Your task to perform on an android device: toggle improve location accuracy Image 0: 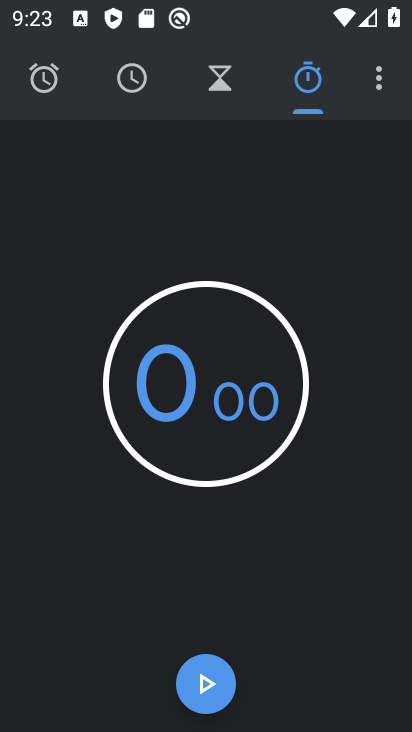
Step 0: press home button
Your task to perform on an android device: toggle improve location accuracy Image 1: 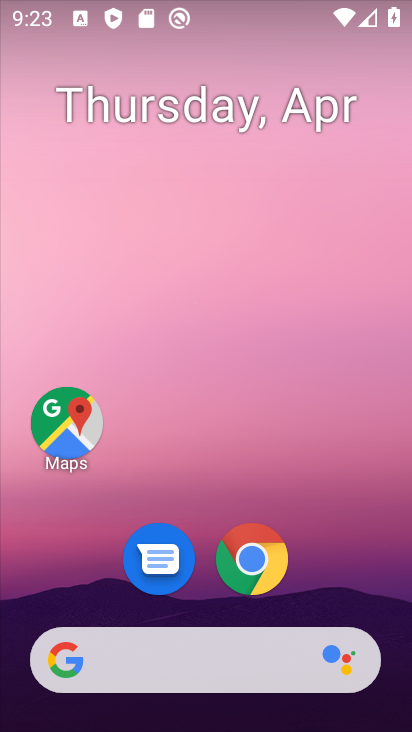
Step 1: click (76, 437)
Your task to perform on an android device: toggle improve location accuracy Image 2: 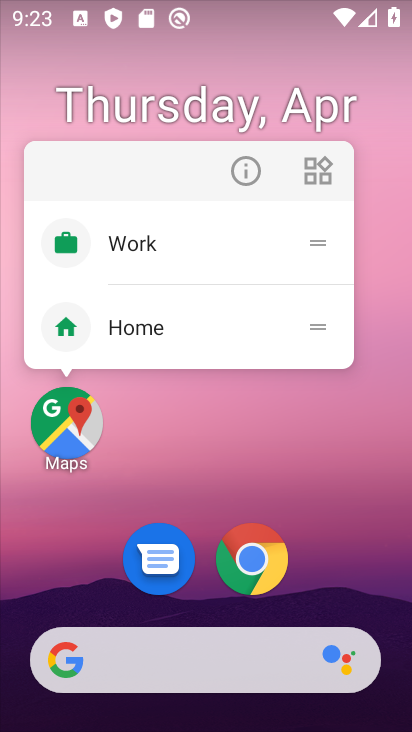
Step 2: click (78, 421)
Your task to perform on an android device: toggle improve location accuracy Image 3: 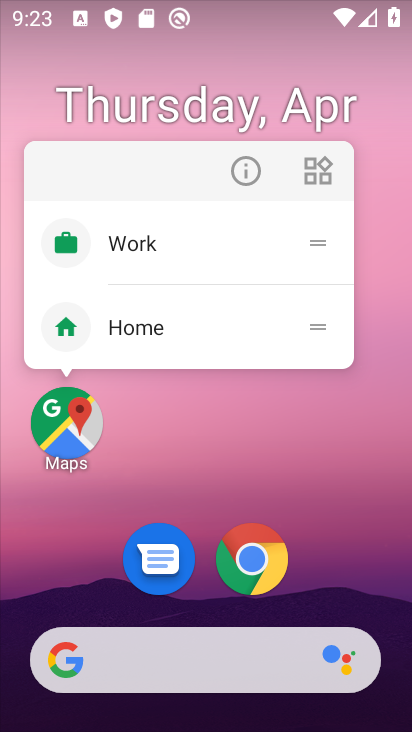
Step 3: click (78, 420)
Your task to perform on an android device: toggle improve location accuracy Image 4: 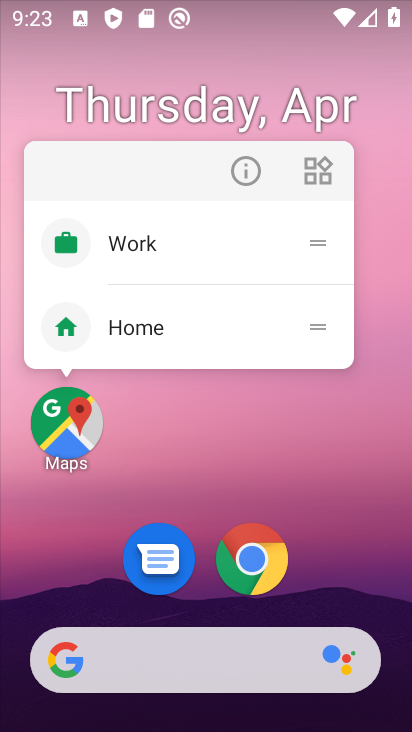
Step 4: click (78, 420)
Your task to perform on an android device: toggle improve location accuracy Image 5: 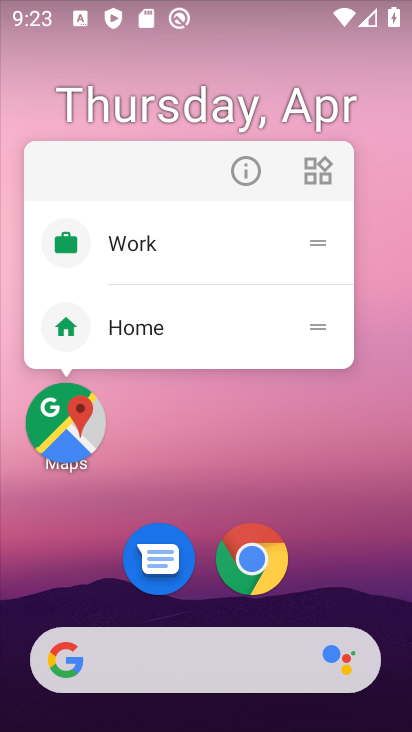
Step 5: click (78, 420)
Your task to perform on an android device: toggle improve location accuracy Image 6: 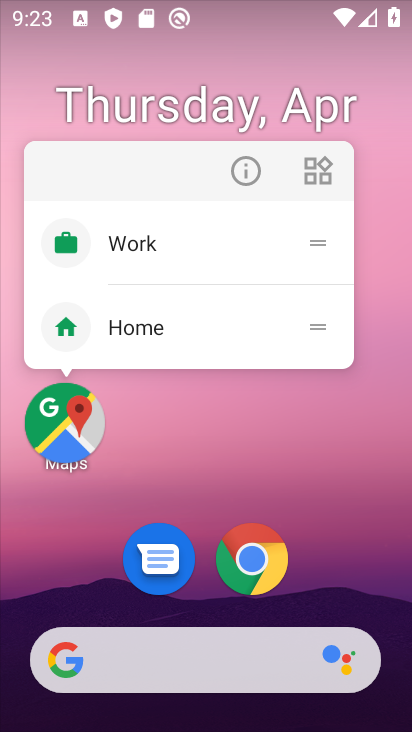
Step 6: click (78, 420)
Your task to perform on an android device: toggle improve location accuracy Image 7: 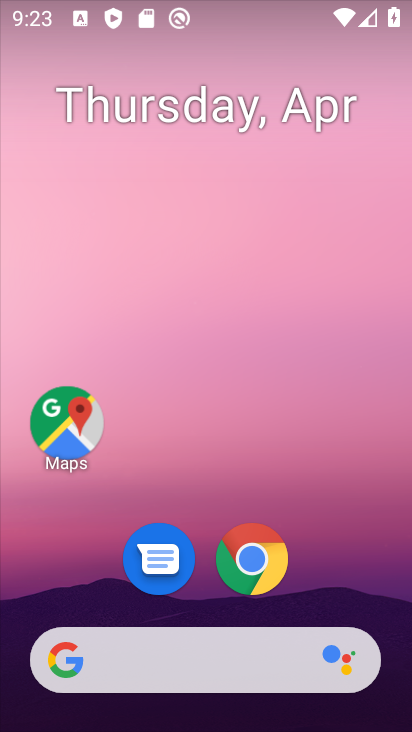
Step 7: click (78, 420)
Your task to perform on an android device: toggle improve location accuracy Image 8: 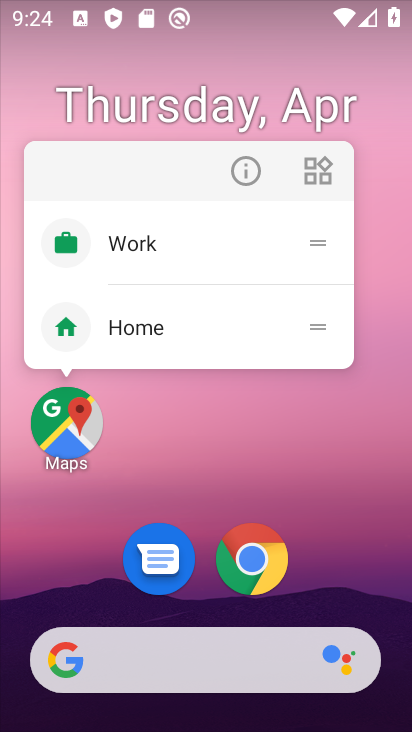
Step 8: click (78, 420)
Your task to perform on an android device: toggle improve location accuracy Image 9: 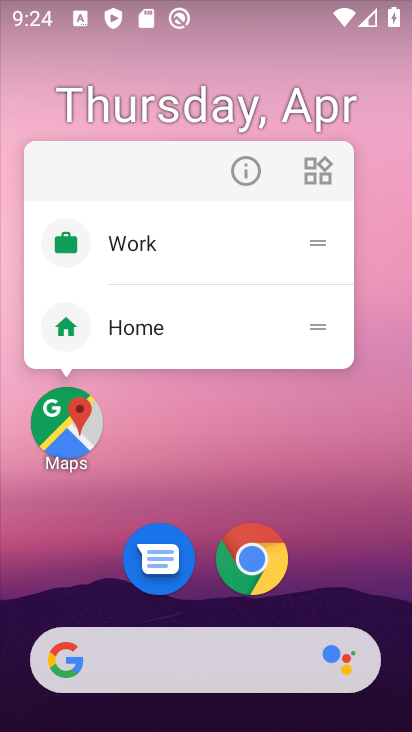
Step 9: click (78, 420)
Your task to perform on an android device: toggle improve location accuracy Image 10: 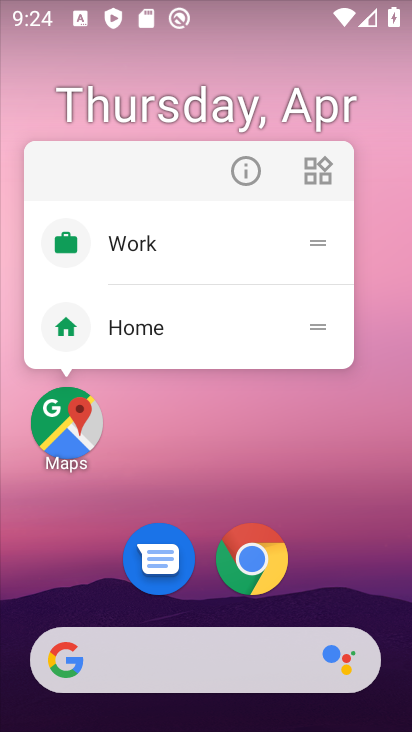
Step 10: click (78, 420)
Your task to perform on an android device: toggle improve location accuracy Image 11: 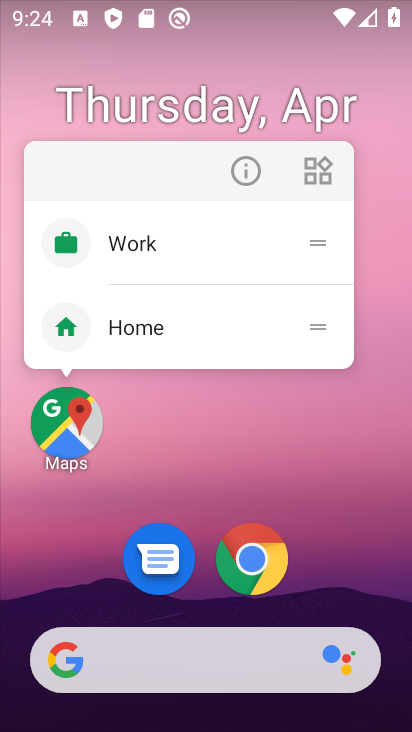
Step 11: click (78, 420)
Your task to perform on an android device: toggle improve location accuracy Image 12: 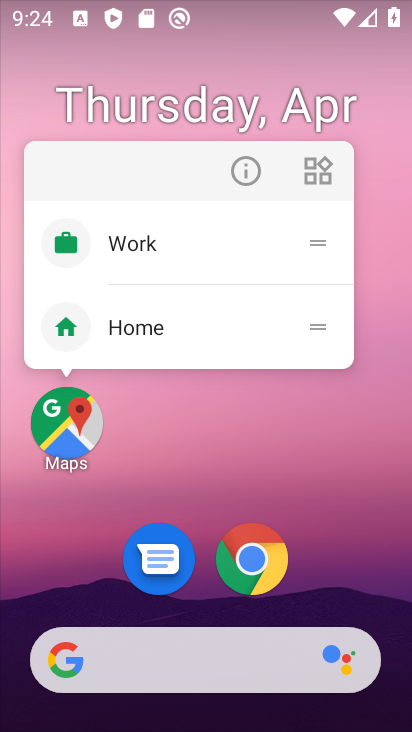
Step 12: click (78, 420)
Your task to perform on an android device: toggle improve location accuracy Image 13: 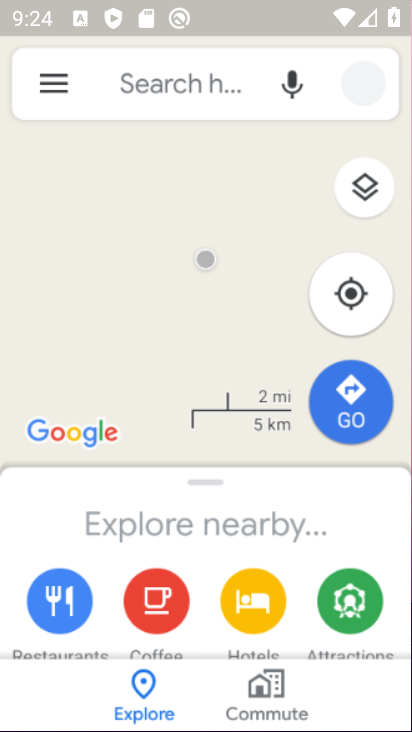
Step 13: click (78, 420)
Your task to perform on an android device: toggle improve location accuracy Image 14: 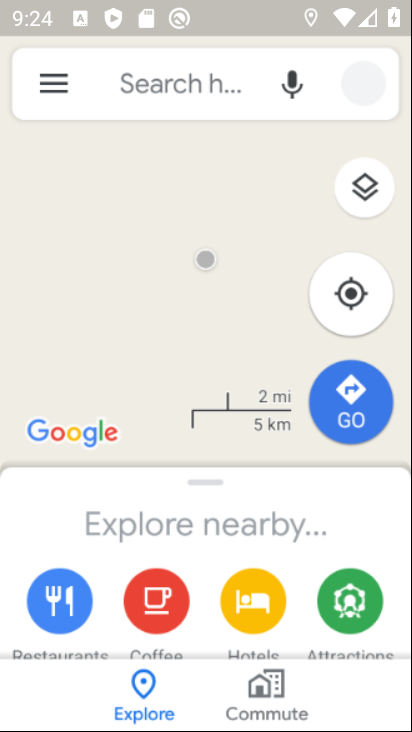
Step 14: click (78, 420)
Your task to perform on an android device: toggle improve location accuracy Image 15: 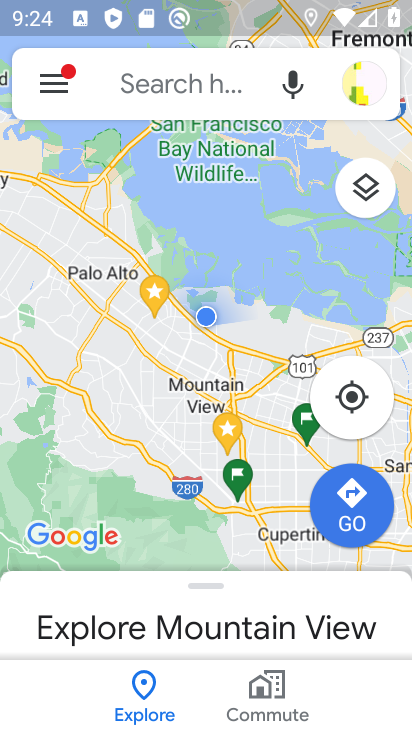
Step 15: click (52, 89)
Your task to perform on an android device: toggle improve location accuracy Image 16: 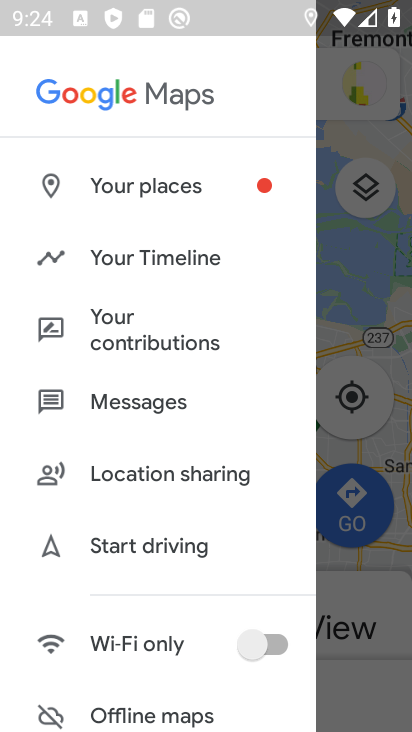
Step 16: drag from (174, 600) to (150, 100)
Your task to perform on an android device: toggle improve location accuracy Image 17: 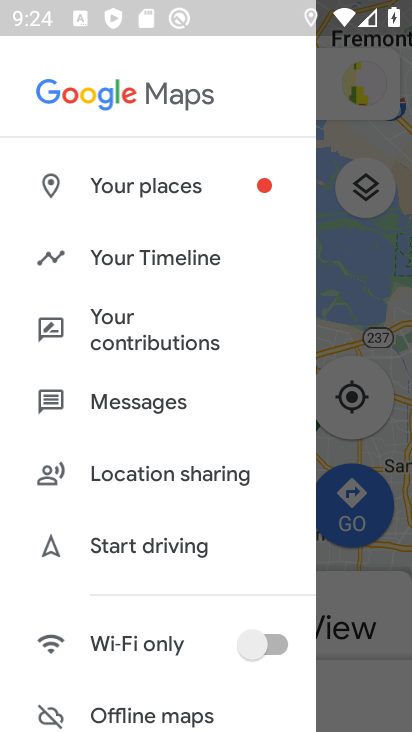
Step 17: drag from (157, 673) to (223, 101)
Your task to perform on an android device: toggle improve location accuracy Image 18: 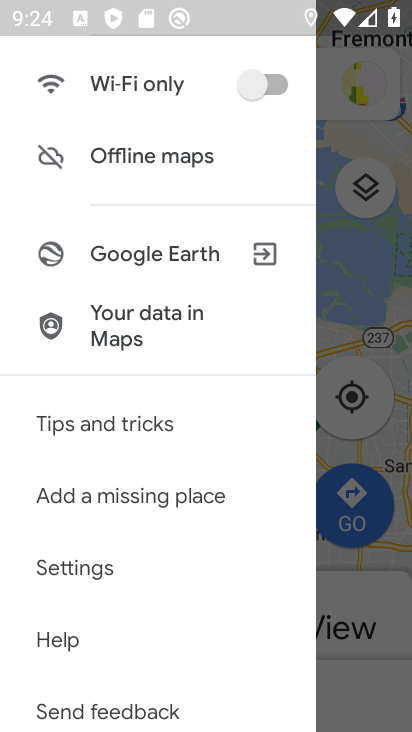
Step 18: click (115, 570)
Your task to perform on an android device: toggle improve location accuracy Image 19: 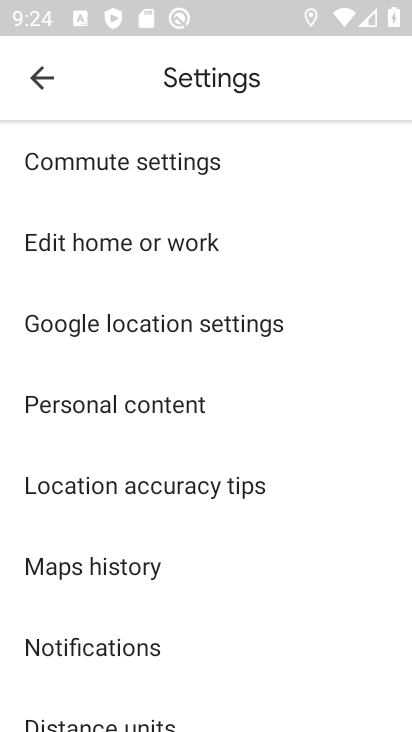
Step 19: click (233, 322)
Your task to perform on an android device: toggle improve location accuracy Image 20: 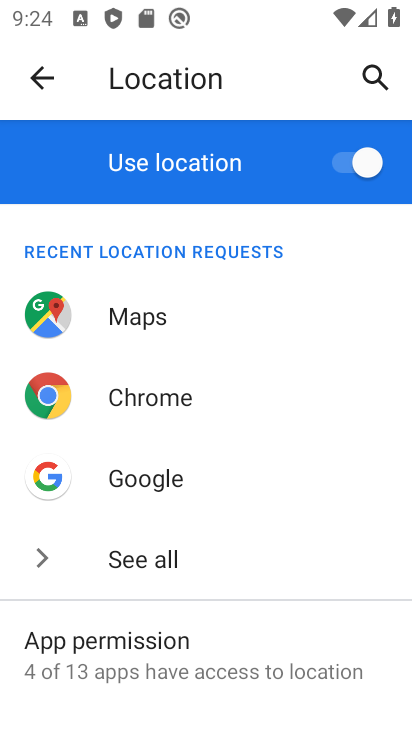
Step 20: drag from (297, 670) to (273, 12)
Your task to perform on an android device: toggle improve location accuracy Image 21: 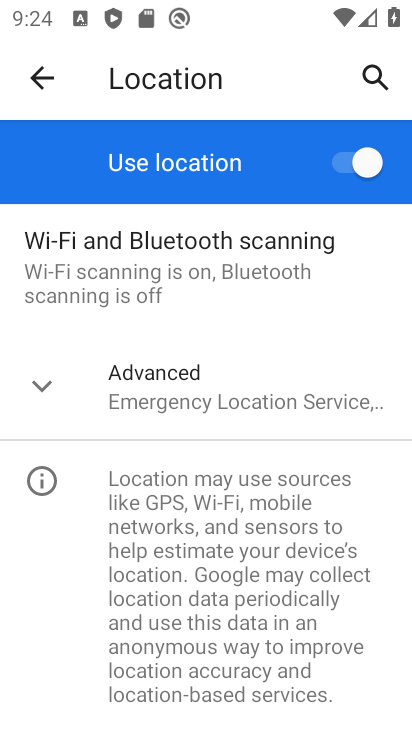
Step 21: click (272, 405)
Your task to perform on an android device: toggle improve location accuracy Image 22: 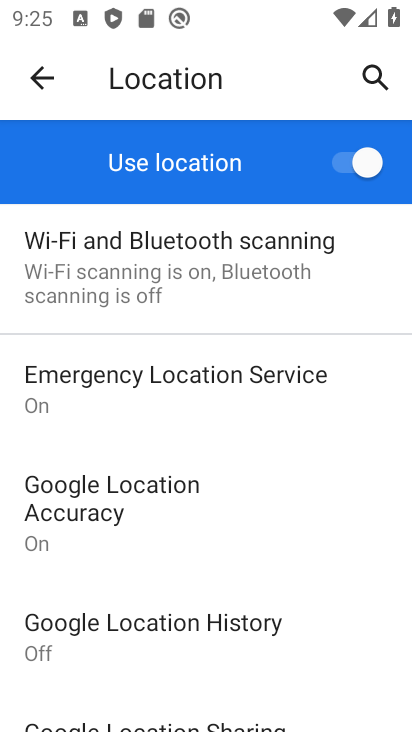
Step 22: click (136, 516)
Your task to perform on an android device: toggle improve location accuracy Image 23: 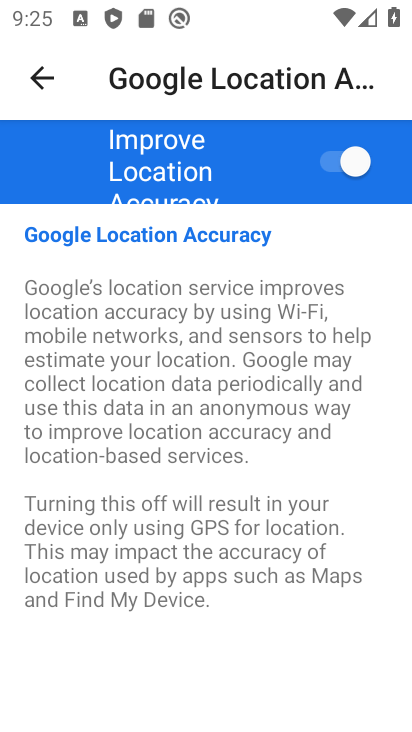
Step 23: click (360, 153)
Your task to perform on an android device: toggle improve location accuracy Image 24: 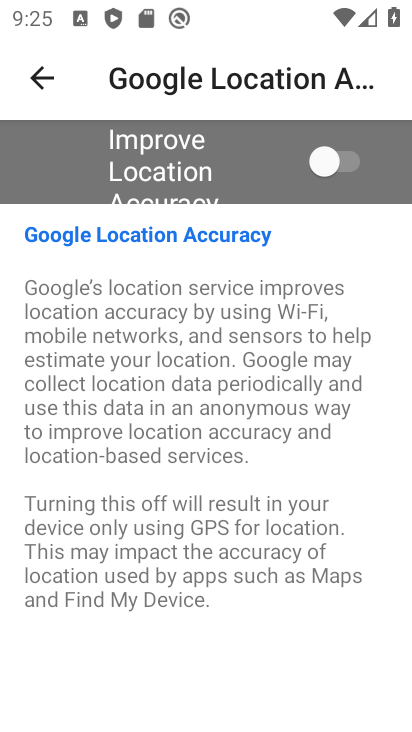
Step 24: task complete